Your task to perform on an android device: Search for "razer blade" on bestbuy, select the first entry, add it to the cart, then select checkout. Image 0: 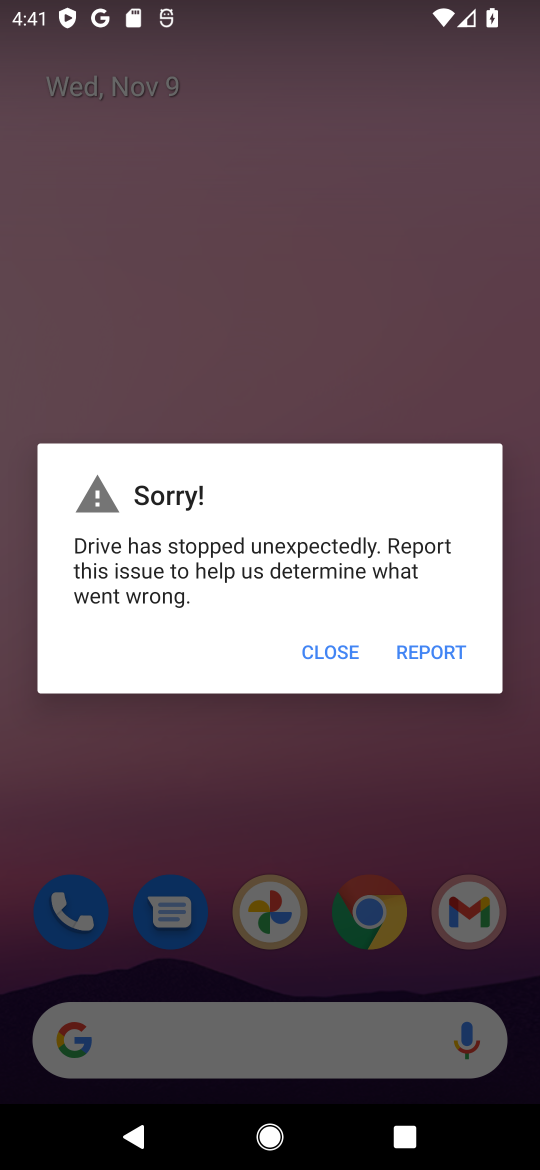
Step 0: press home button
Your task to perform on an android device: Search for "razer blade" on bestbuy, select the first entry, add it to the cart, then select checkout. Image 1: 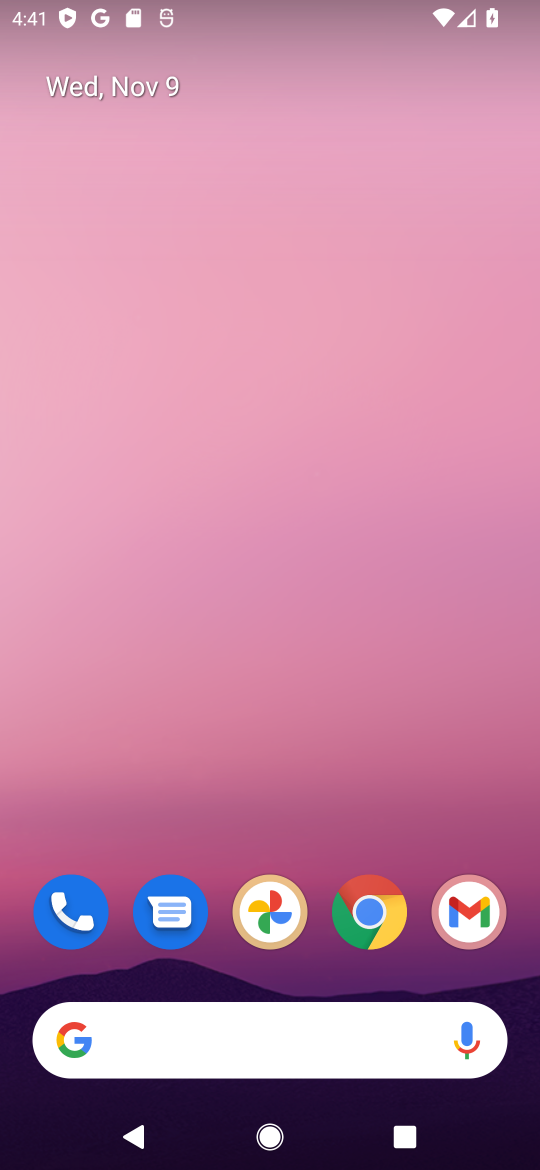
Step 1: click (366, 914)
Your task to perform on an android device: Search for "razer blade" on bestbuy, select the first entry, add it to the cart, then select checkout. Image 2: 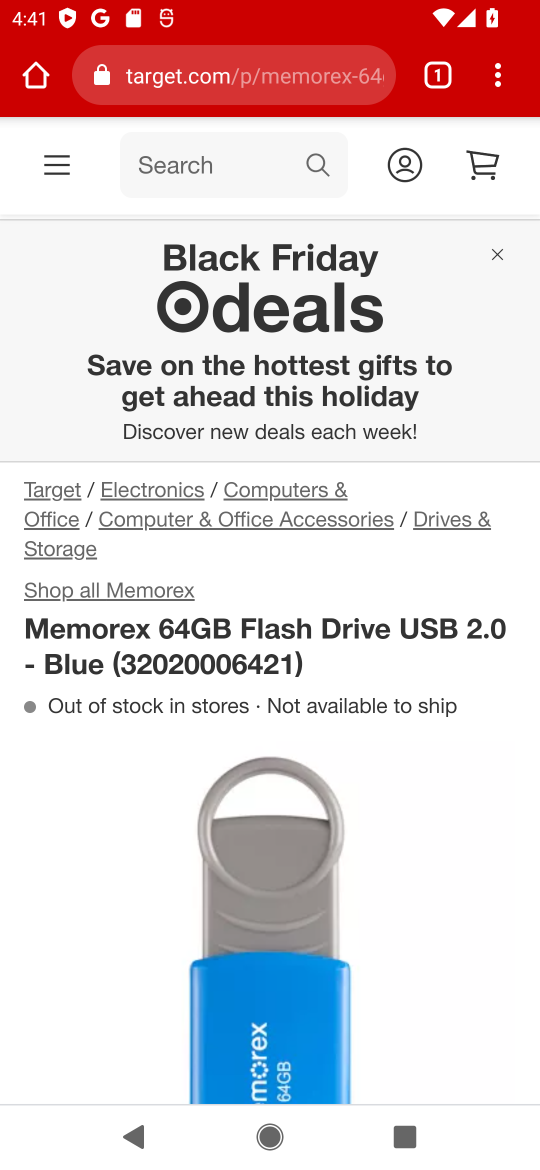
Step 2: click (299, 74)
Your task to perform on an android device: Search for "razer blade" on bestbuy, select the first entry, add it to the cart, then select checkout. Image 3: 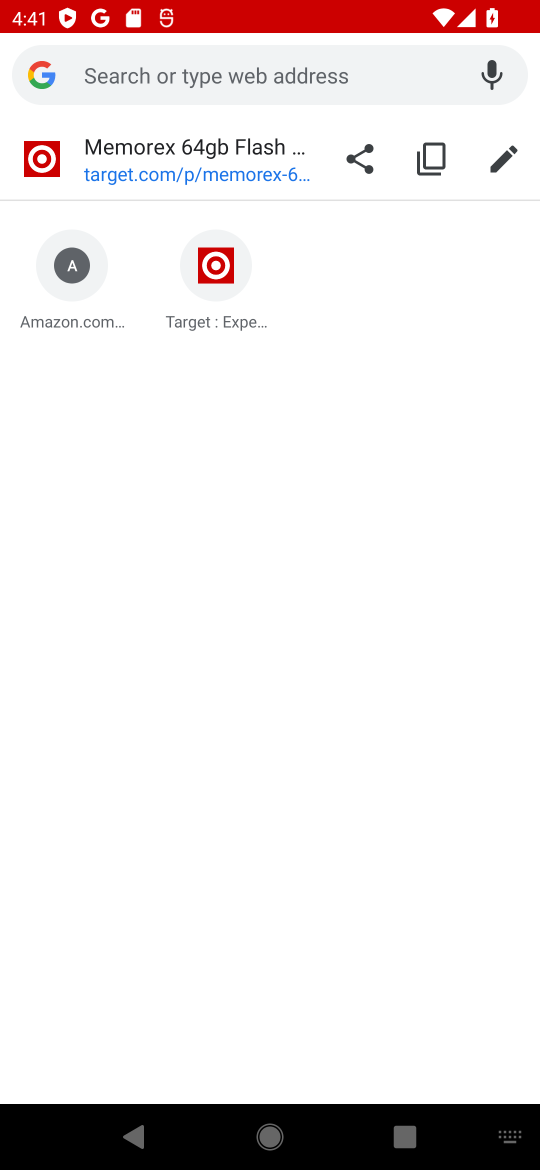
Step 3: type "bestbuy"
Your task to perform on an android device: Search for "razer blade" on bestbuy, select the first entry, add it to the cart, then select checkout. Image 4: 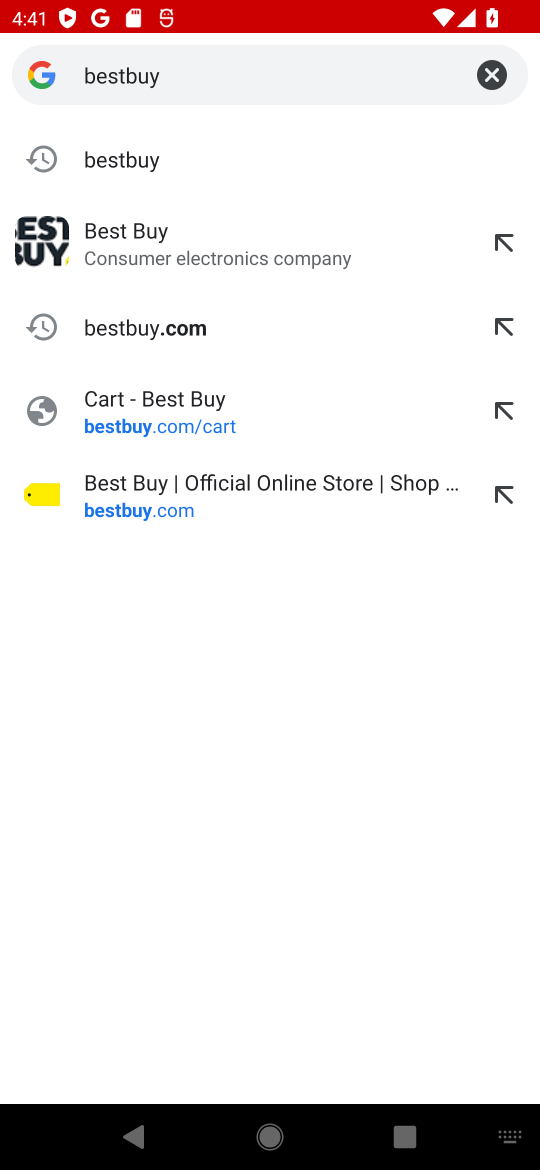
Step 4: click (103, 158)
Your task to perform on an android device: Search for "razer blade" on bestbuy, select the first entry, add it to the cart, then select checkout. Image 5: 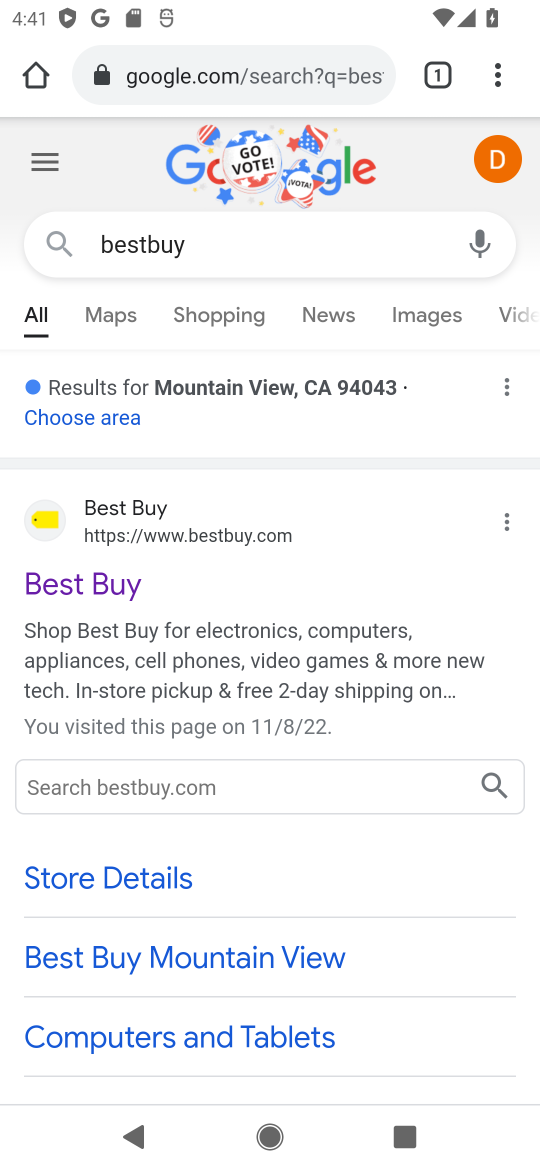
Step 5: click (120, 575)
Your task to perform on an android device: Search for "razer blade" on bestbuy, select the first entry, add it to the cart, then select checkout. Image 6: 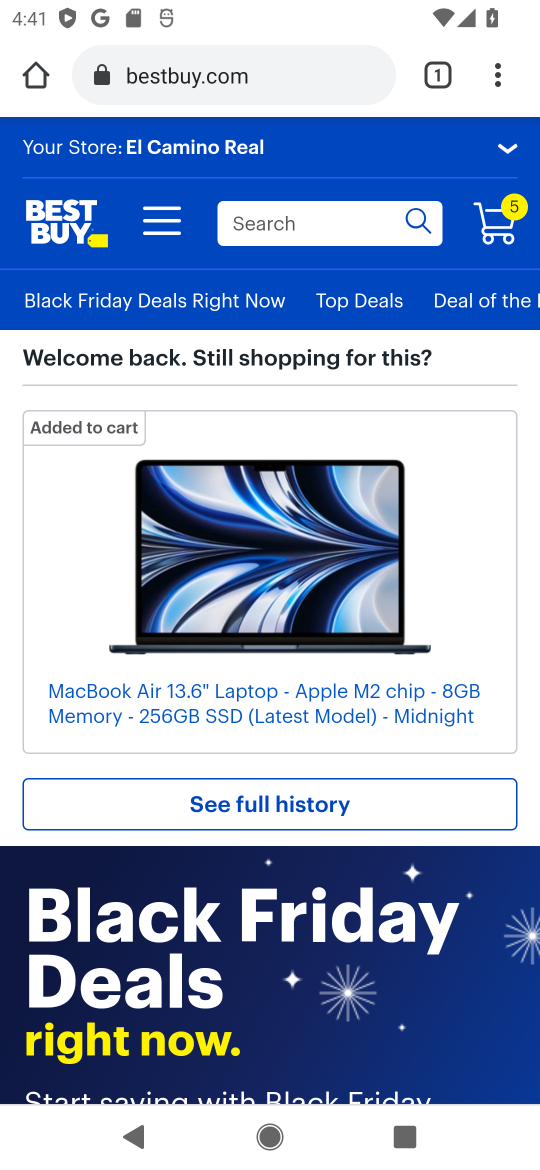
Step 6: click (349, 217)
Your task to perform on an android device: Search for "razer blade" on bestbuy, select the first entry, add it to the cart, then select checkout. Image 7: 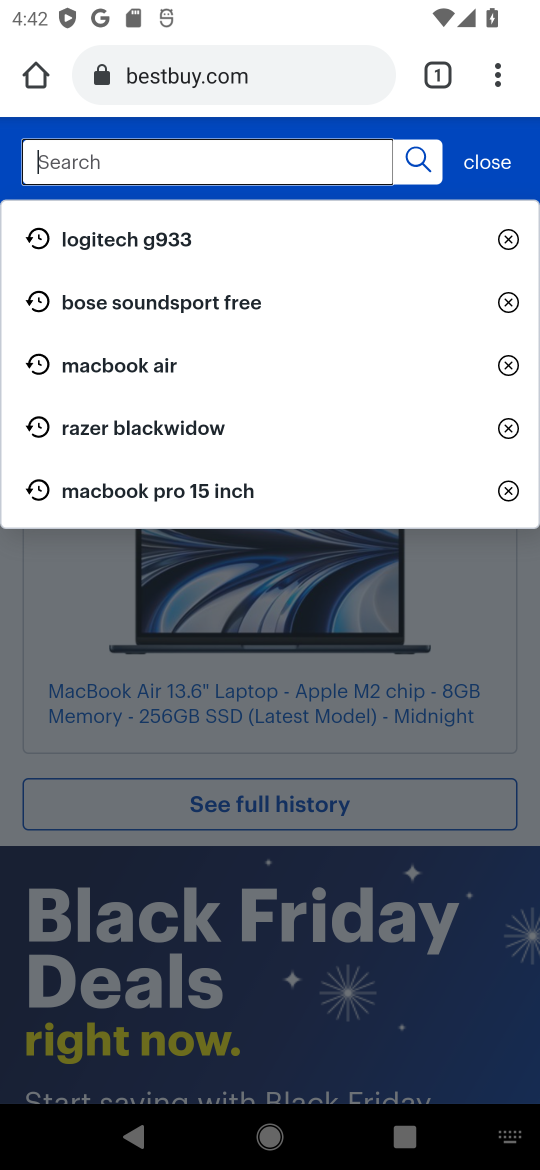
Step 7: type "razer blade"
Your task to perform on an android device: Search for "razer blade" on bestbuy, select the first entry, add it to the cart, then select checkout. Image 8: 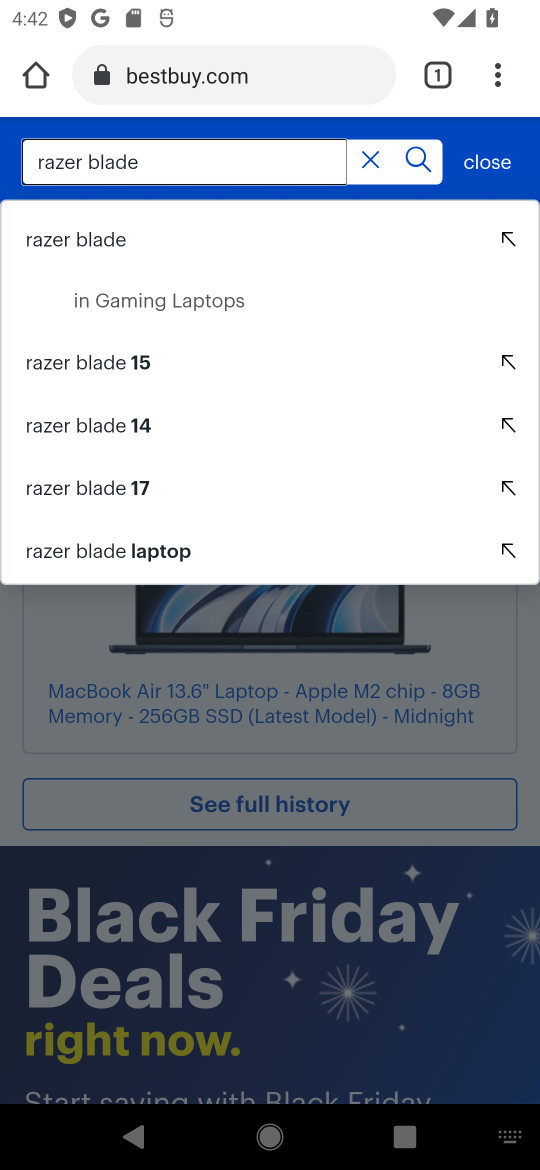
Step 8: click (99, 241)
Your task to perform on an android device: Search for "razer blade" on bestbuy, select the first entry, add it to the cart, then select checkout. Image 9: 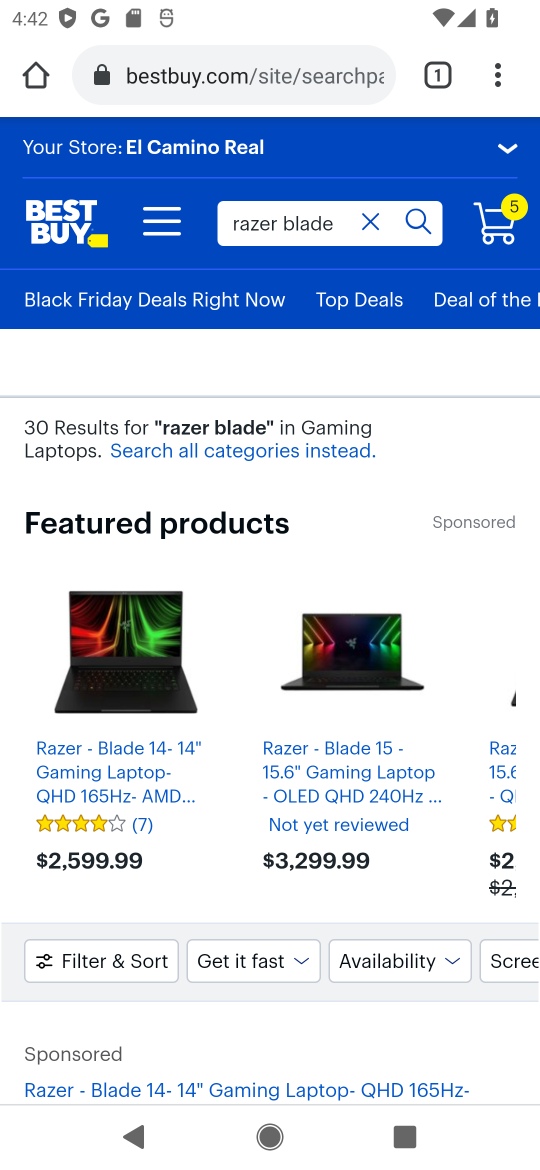
Step 9: drag from (225, 722) to (238, 412)
Your task to perform on an android device: Search for "razer blade" on bestbuy, select the first entry, add it to the cart, then select checkout. Image 10: 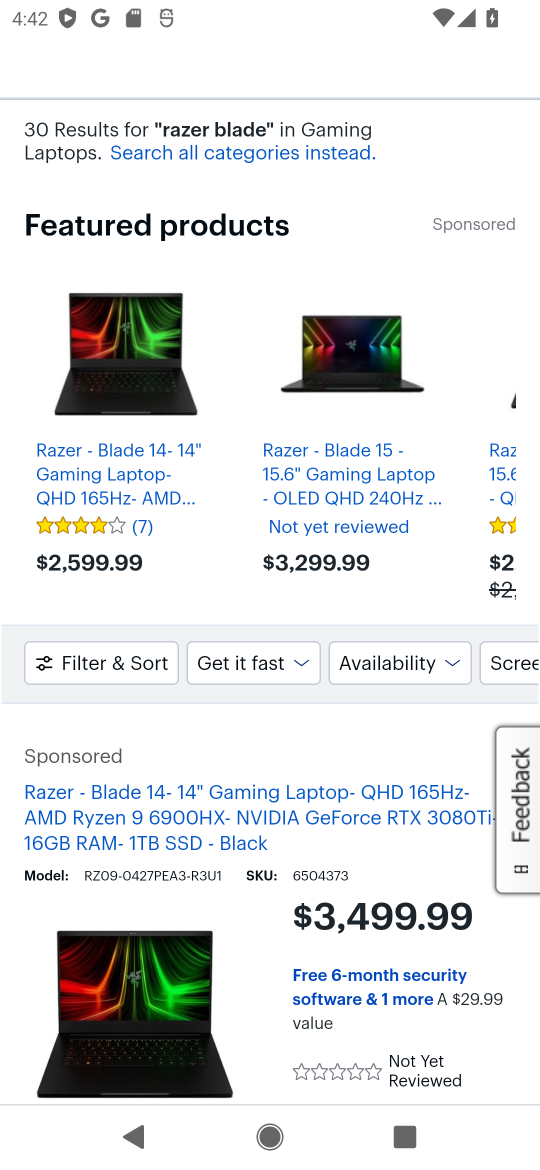
Step 10: drag from (228, 465) to (278, 302)
Your task to perform on an android device: Search for "razer blade" on bestbuy, select the first entry, add it to the cart, then select checkout. Image 11: 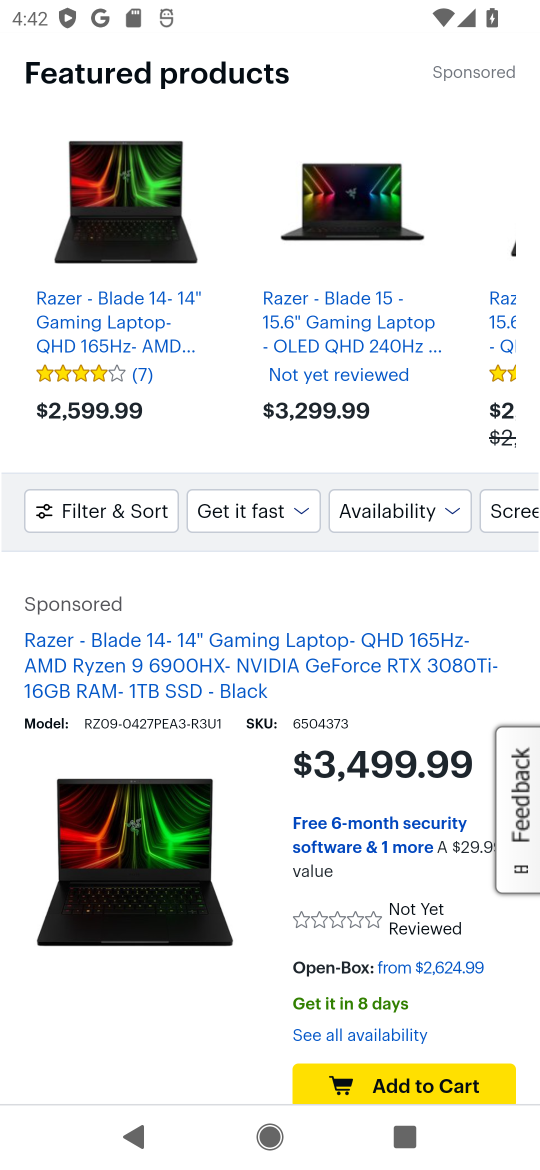
Step 11: drag from (257, 119) to (167, 481)
Your task to perform on an android device: Search for "razer blade" on bestbuy, select the first entry, add it to the cart, then select checkout. Image 12: 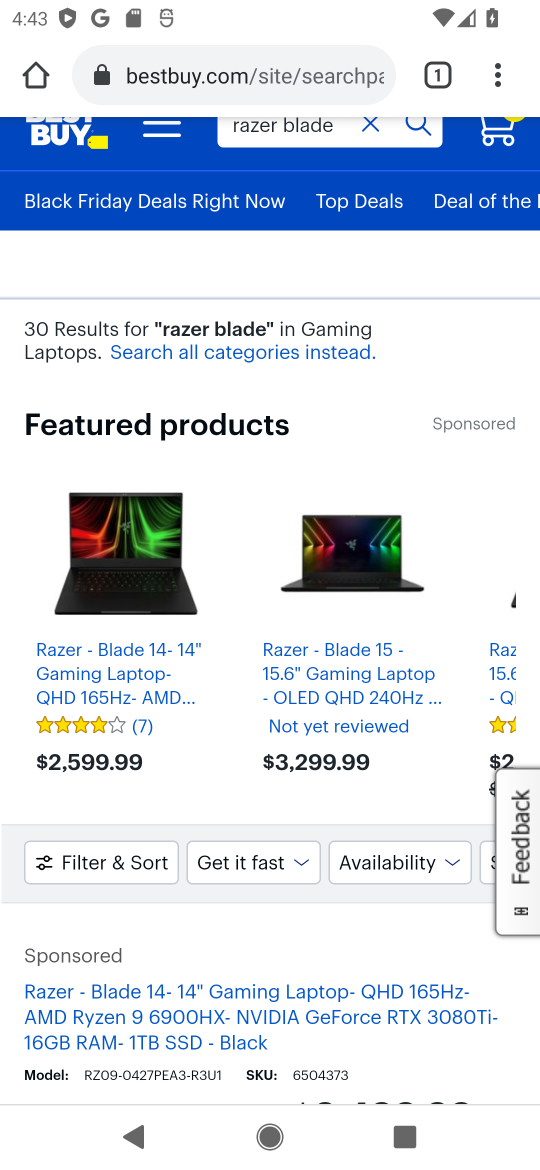
Step 12: click (242, 1005)
Your task to perform on an android device: Search for "razer blade" on bestbuy, select the first entry, add it to the cart, then select checkout. Image 13: 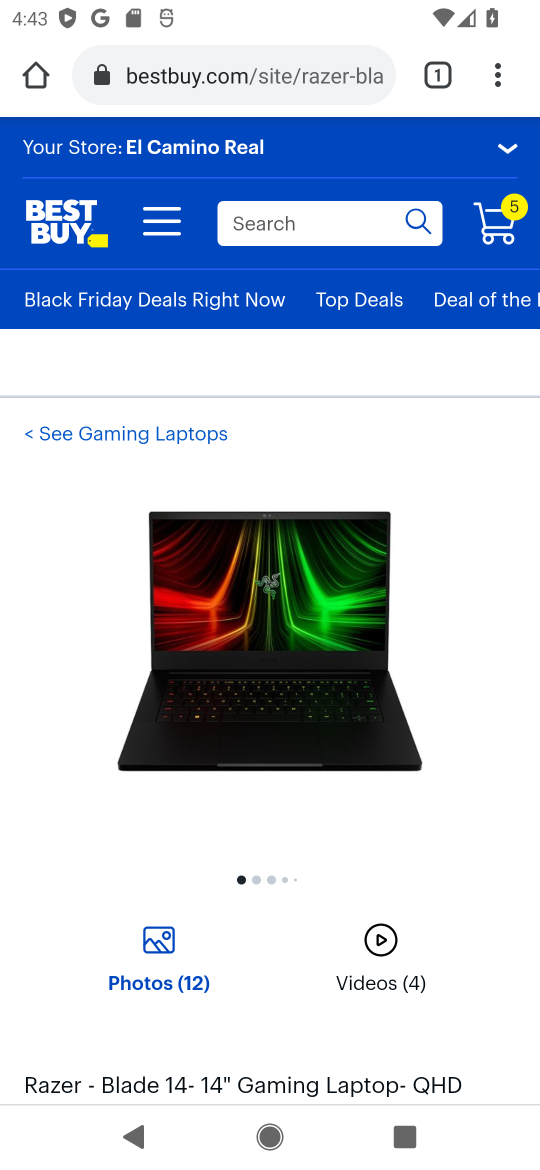
Step 13: drag from (245, 814) to (303, 470)
Your task to perform on an android device: Search for "razer blade" on bestbuy, select the first entry, add it to the cart, then select checkout. Image 14: 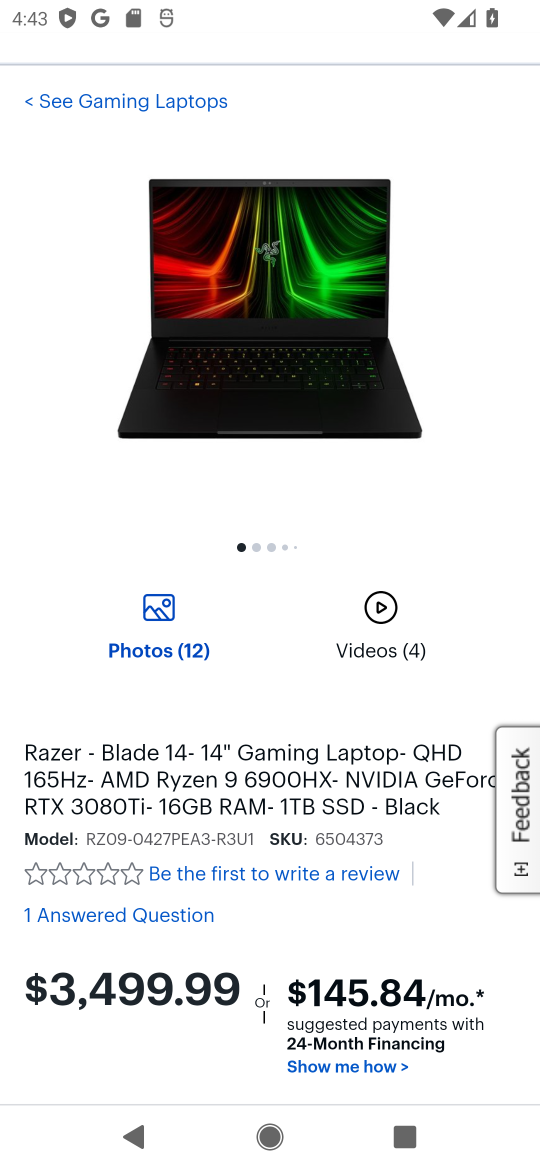
Step 14: drag from (315, 947) to (329, 598)
Your task to perform on an android device: Search for "razer blade" on bestbuy, select the first entry, add it to the cart, then select checkout. Image 15: 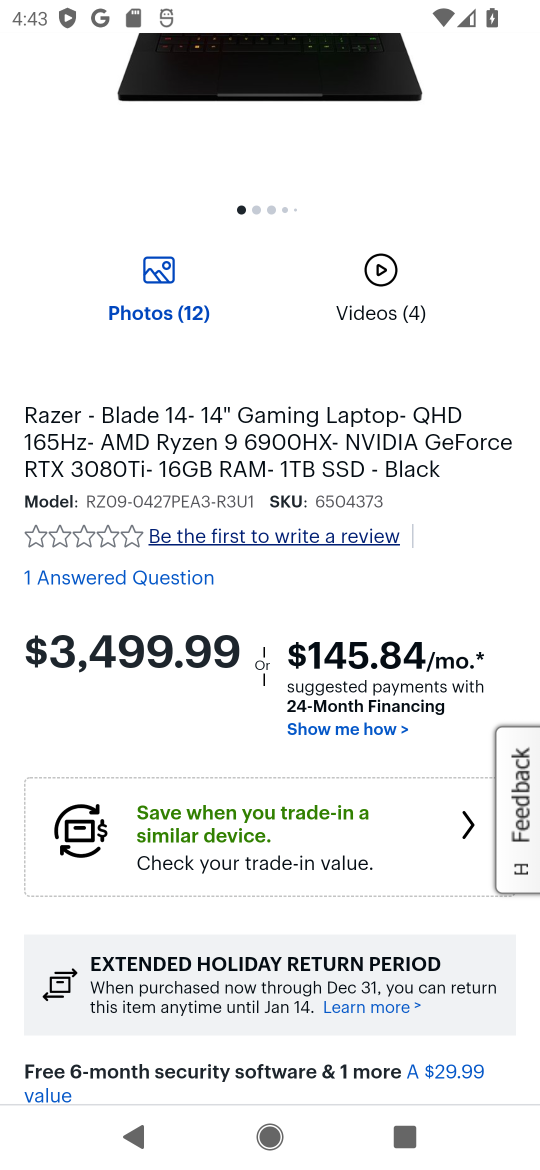
Step 15: drag from (335, 756) to (343, 333)
Your task to perform on an android device: Search for "razer blade" on bestbuy, select the first entry, add it to the cart, then select checkout. Image 16: 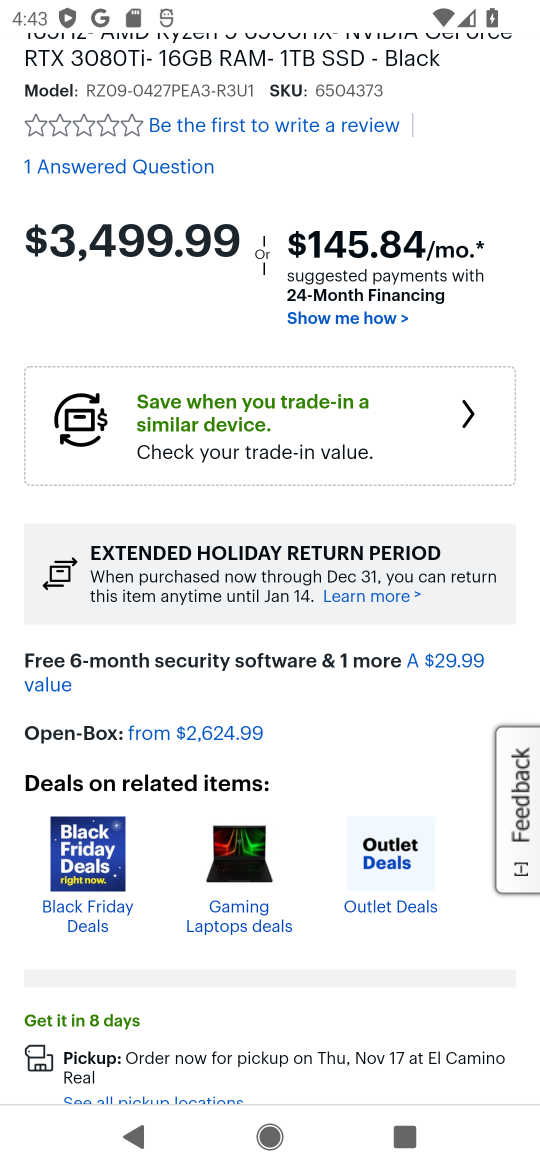
Step 16: drag from (302, 693) to (312, 354)
Your task to perform on an android device: Search for "razer blade" on bestbuy, select the first entry, add it to the cart, then select checkout. Image 17: 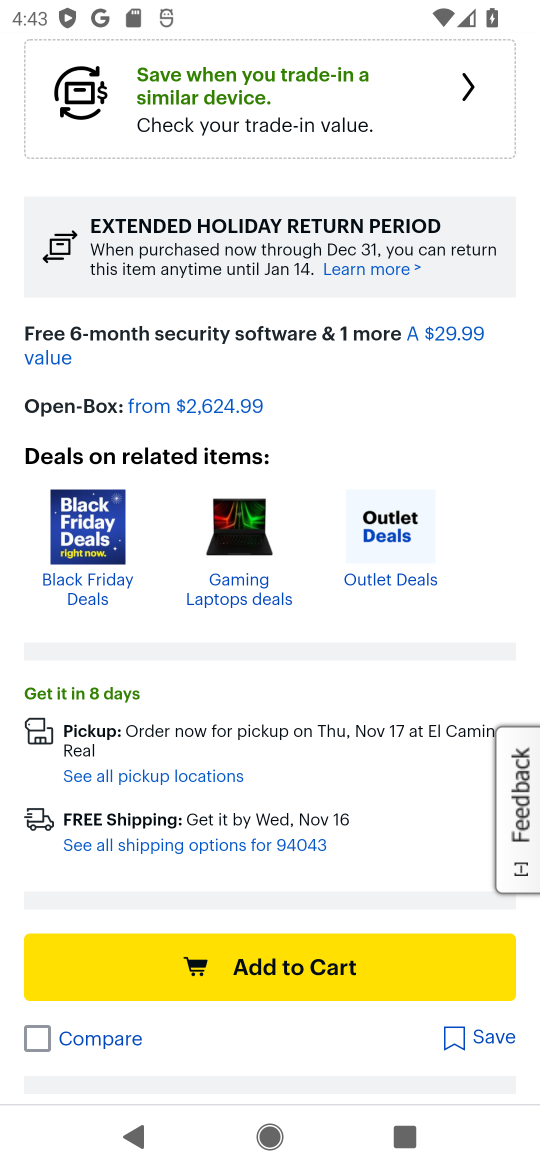
Step 17: click (282, 965)
Your task to perform on an android device: Search for "razer blade" on bestbuy, select the first entry, add it to the cart, then select checkout. Image 18: 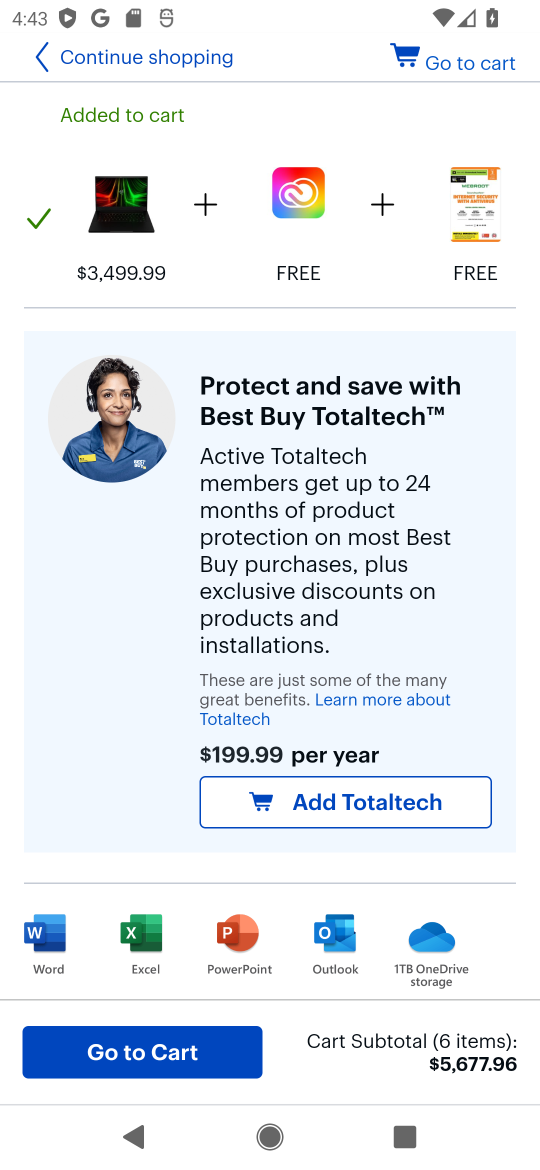
Step 18: click (150, 1059)
Your task to perform on an android device: Search for "razer blade" on bestbuy, select the first entry, add it to the cart, then select checkout. Image 19: 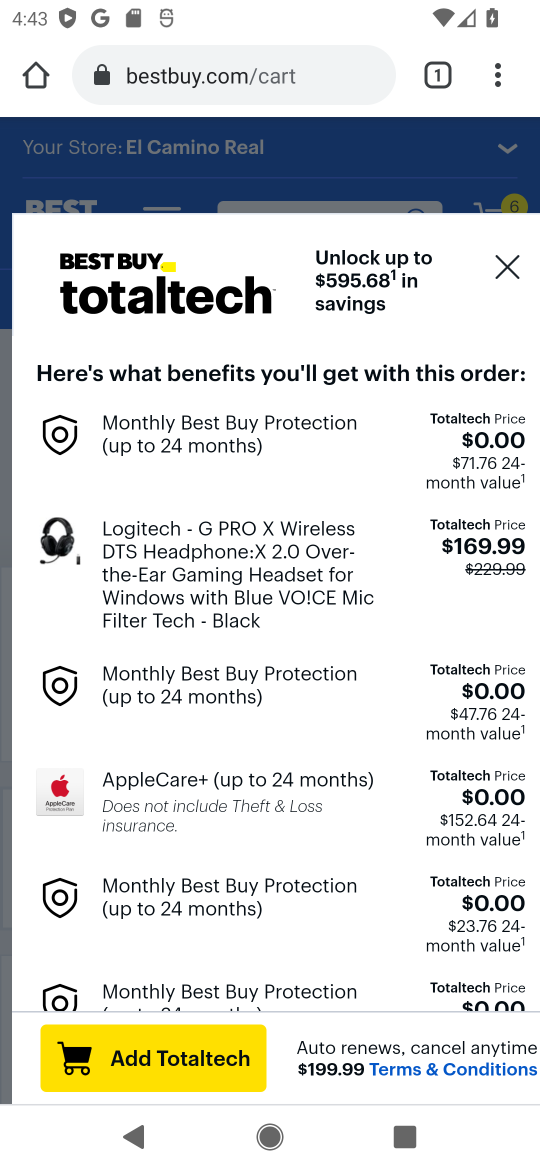
Step 19: click (509, 271)
Your task to perform on an android device: Search for "razer blade" on bestbuy, select the first entry, add it to the cart, then select checkout. Image 20: 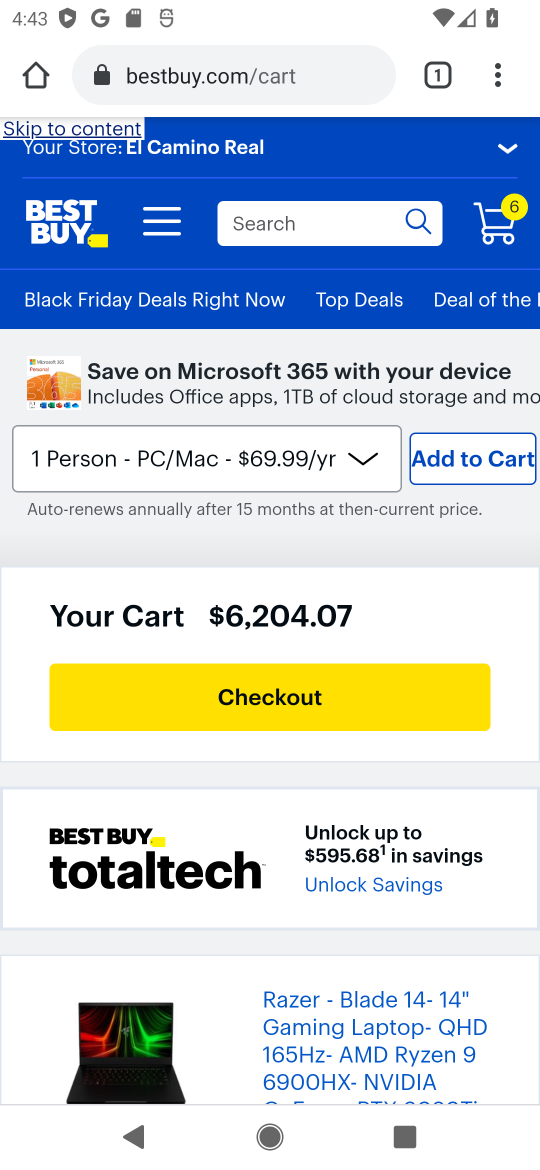
Step 20: click (275, 701)
Your task to perform on an android device: Search for "razer blade" on bestbuy, select the first entry, add it to the cart, then select checkout. Image 21: 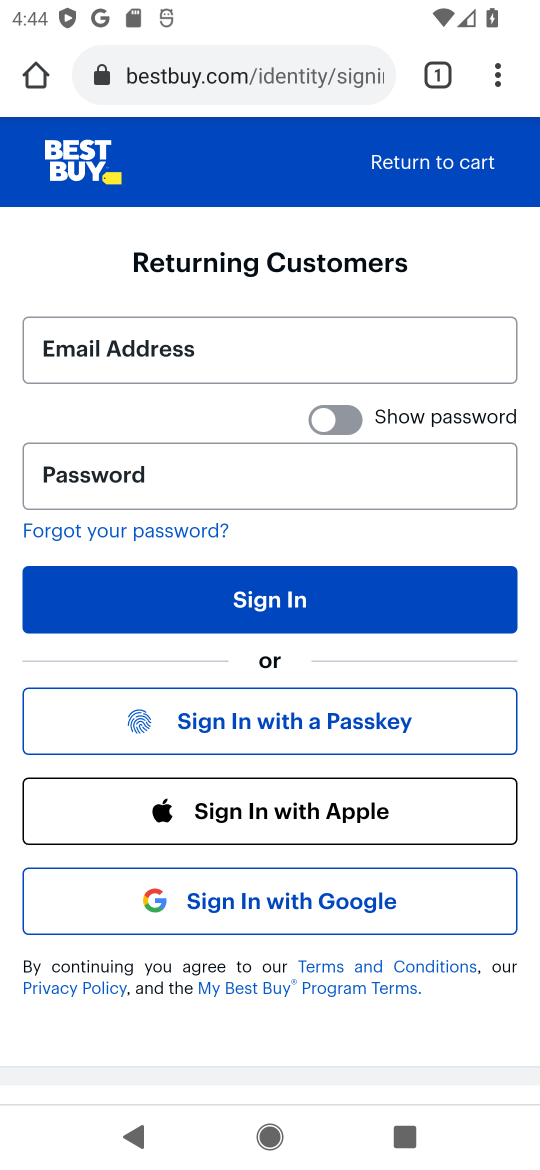
Step 21: task complete